Your task to perform on an android device: Go to Reddit.com Image 0: 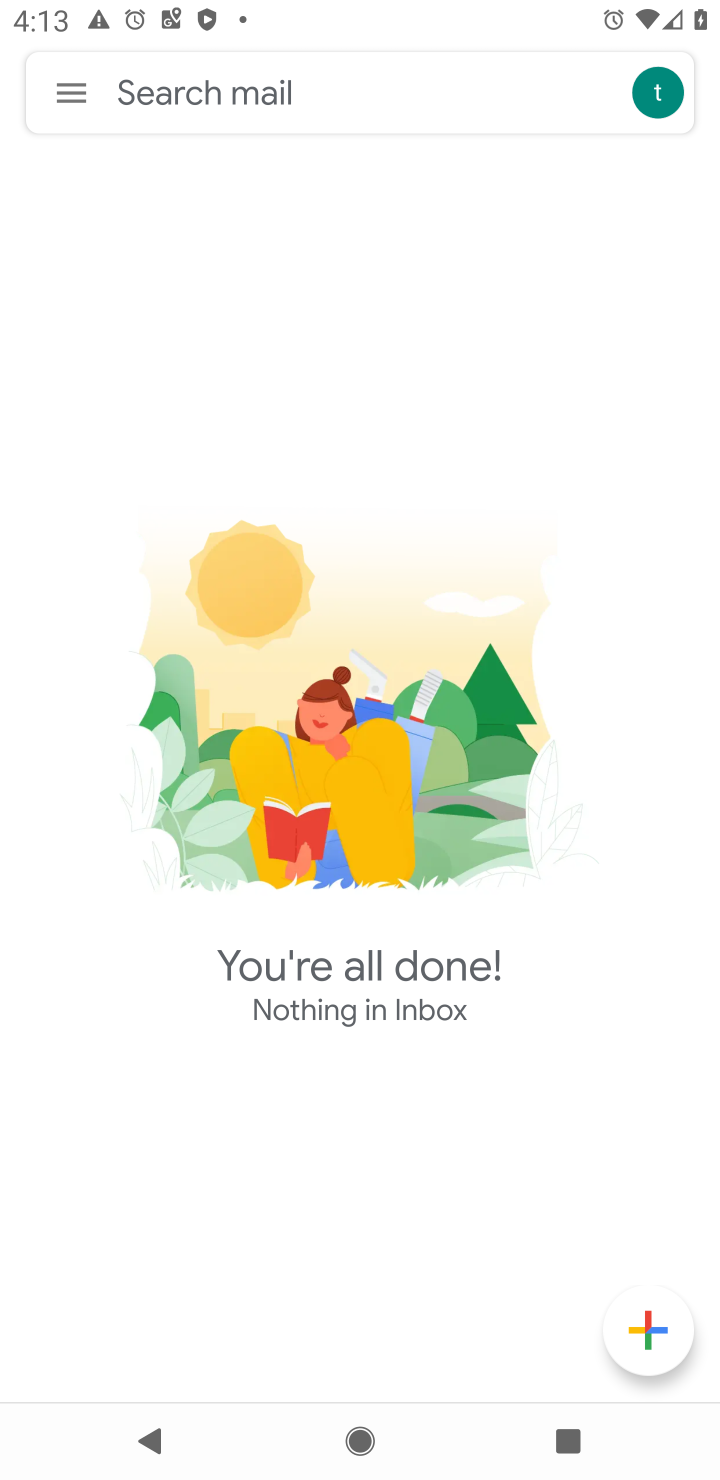
Step 0: press home button
Your task to perform on an android device: Go to Reddit.com Image 1: 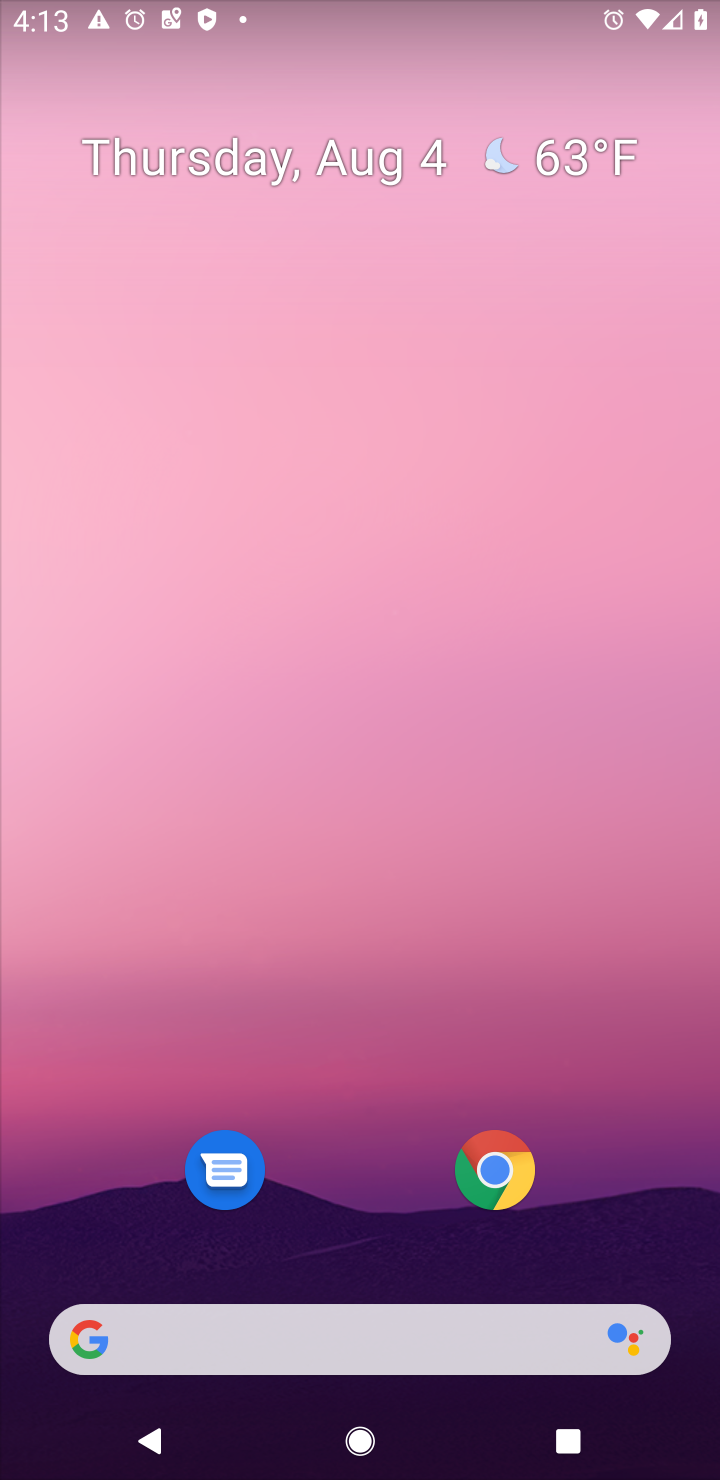
Step 1: click (495, 1173)
Your task to perform on an android device: Go to Reddit.com Image 2: 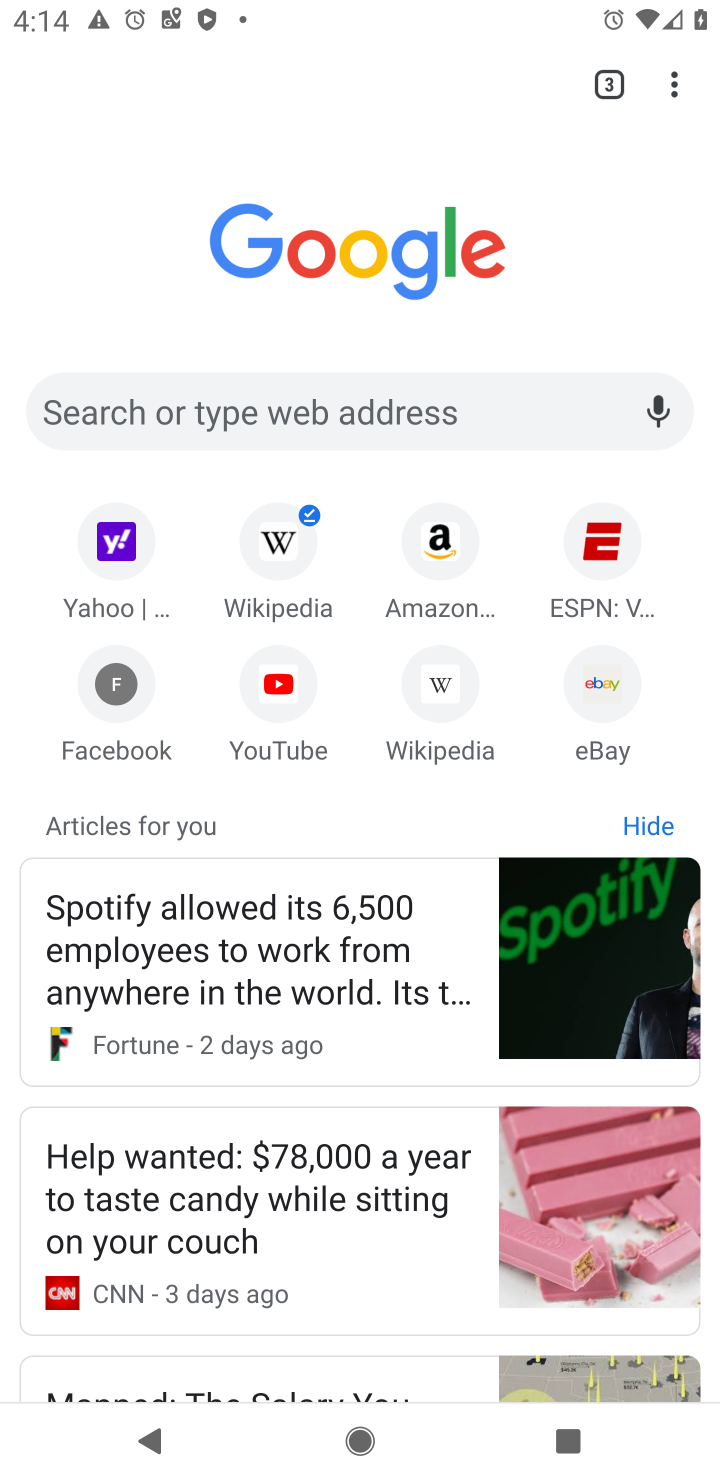
Step 2: click (166, 411)
Your task to perform on an android device: Go to Reddit.com Image 3: 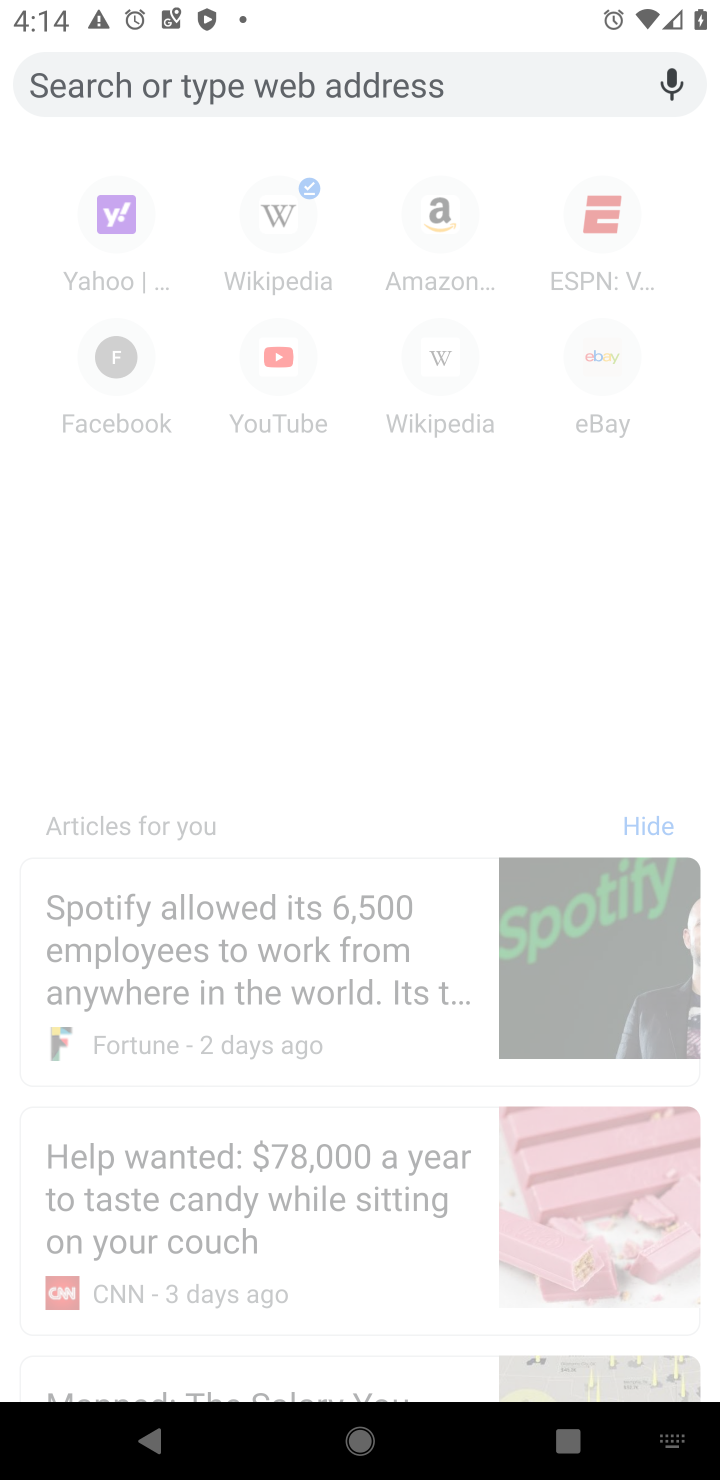
Step 3: type "reddit.com"
Your task to perform on an android device: Go to Reddit.com Image 4: 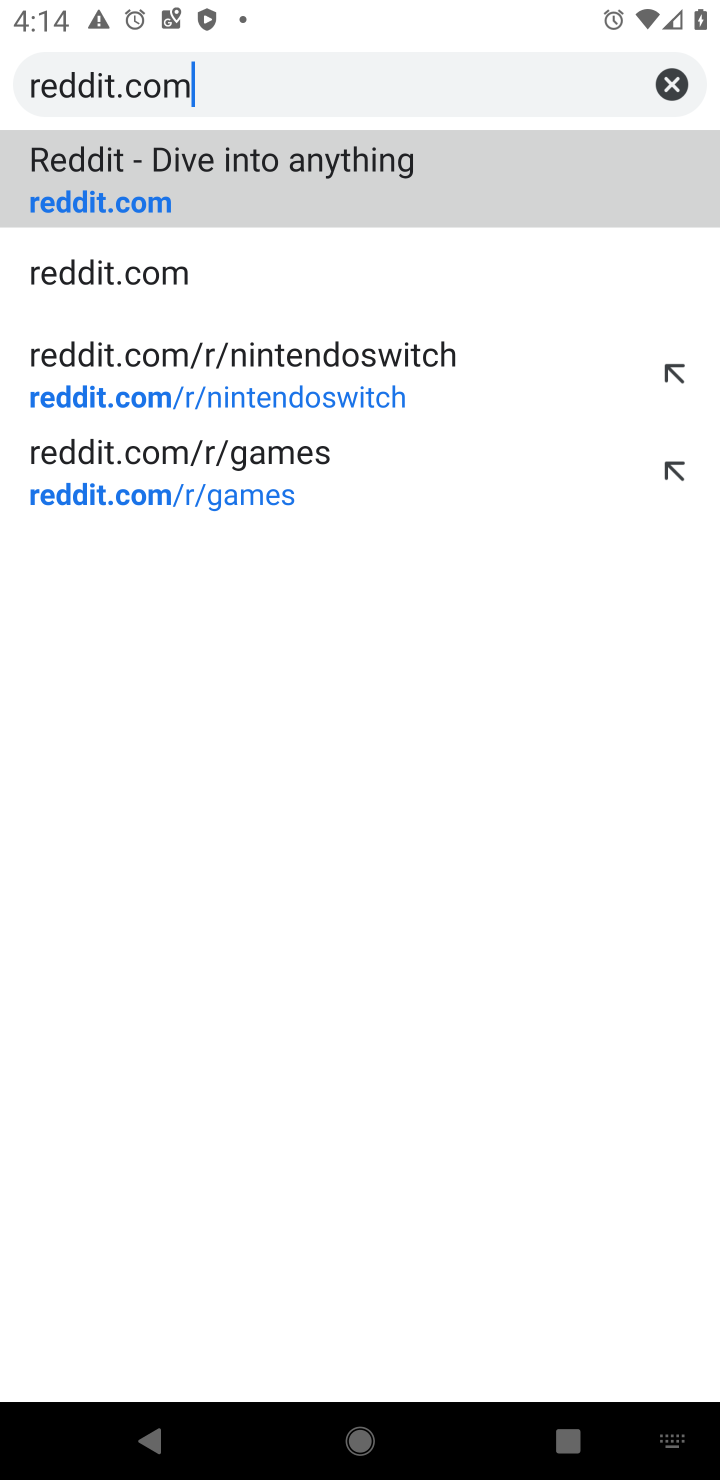
Step 4: click (89, 162)
Your task to perform on an android device: Go to Reddit.com Image 5: 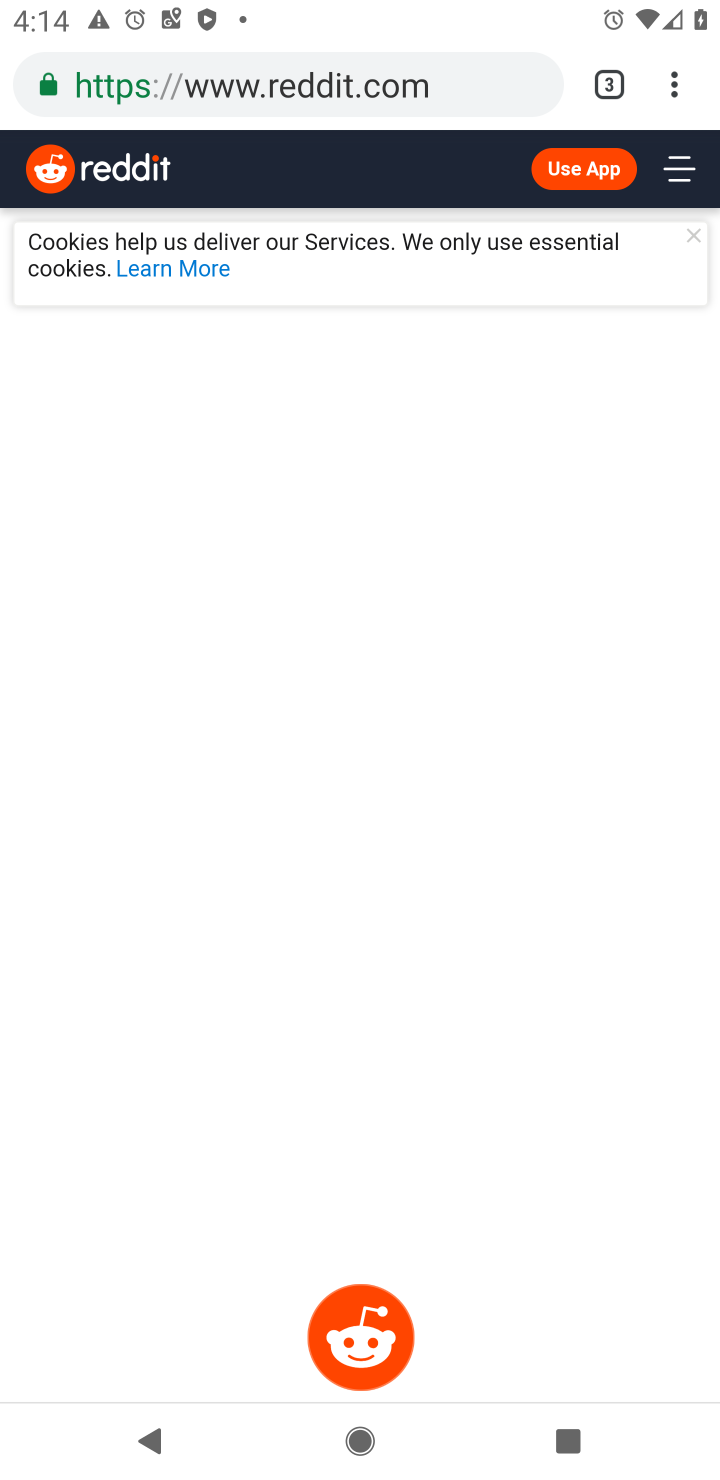
Step 5: task complete